Your task to perform on an android device: Open network settings Image 0: 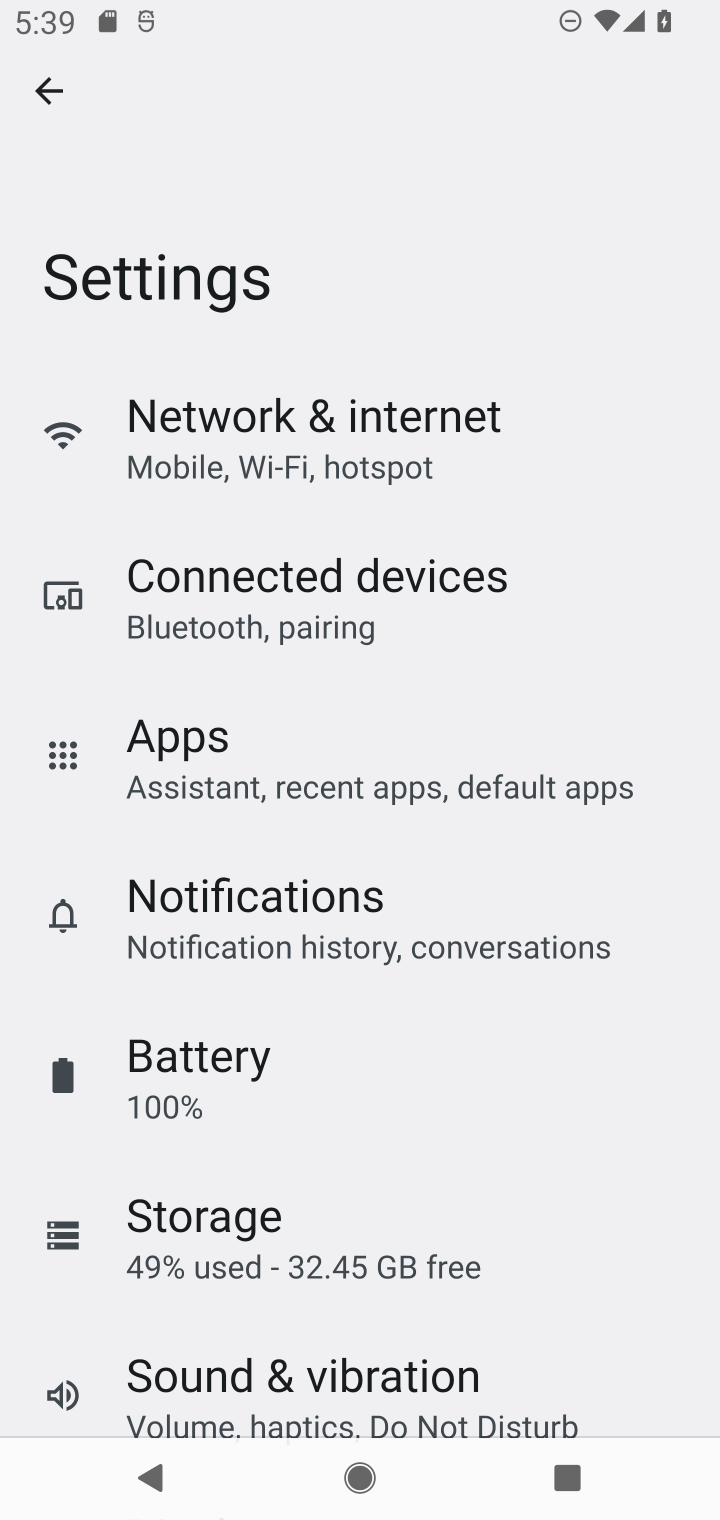
Step 0: press home button
Your task to perform on an android device: Open network settings Image 1: 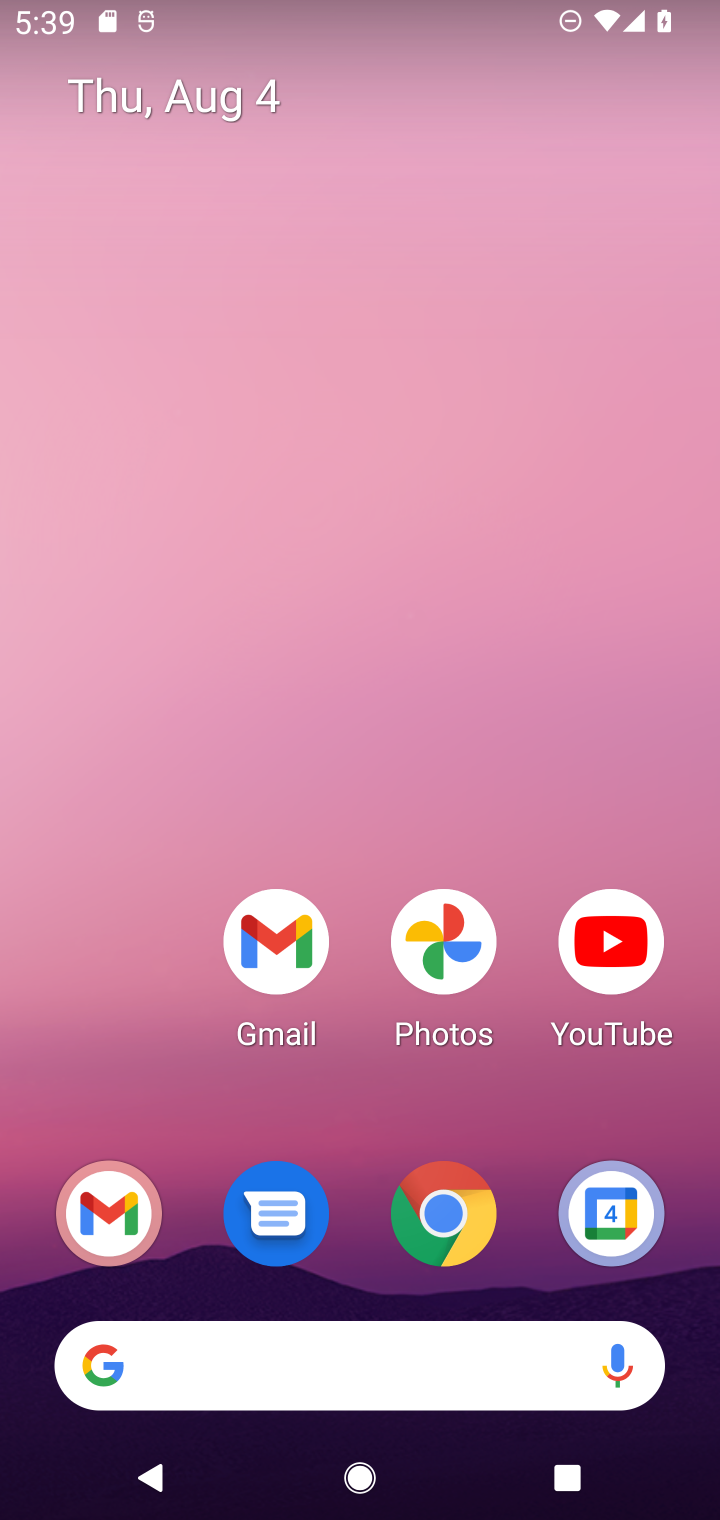
Step 1: drag from (175, 1156) to (194, 360)
Your task to perform on an android device: Open network settings Image 2: 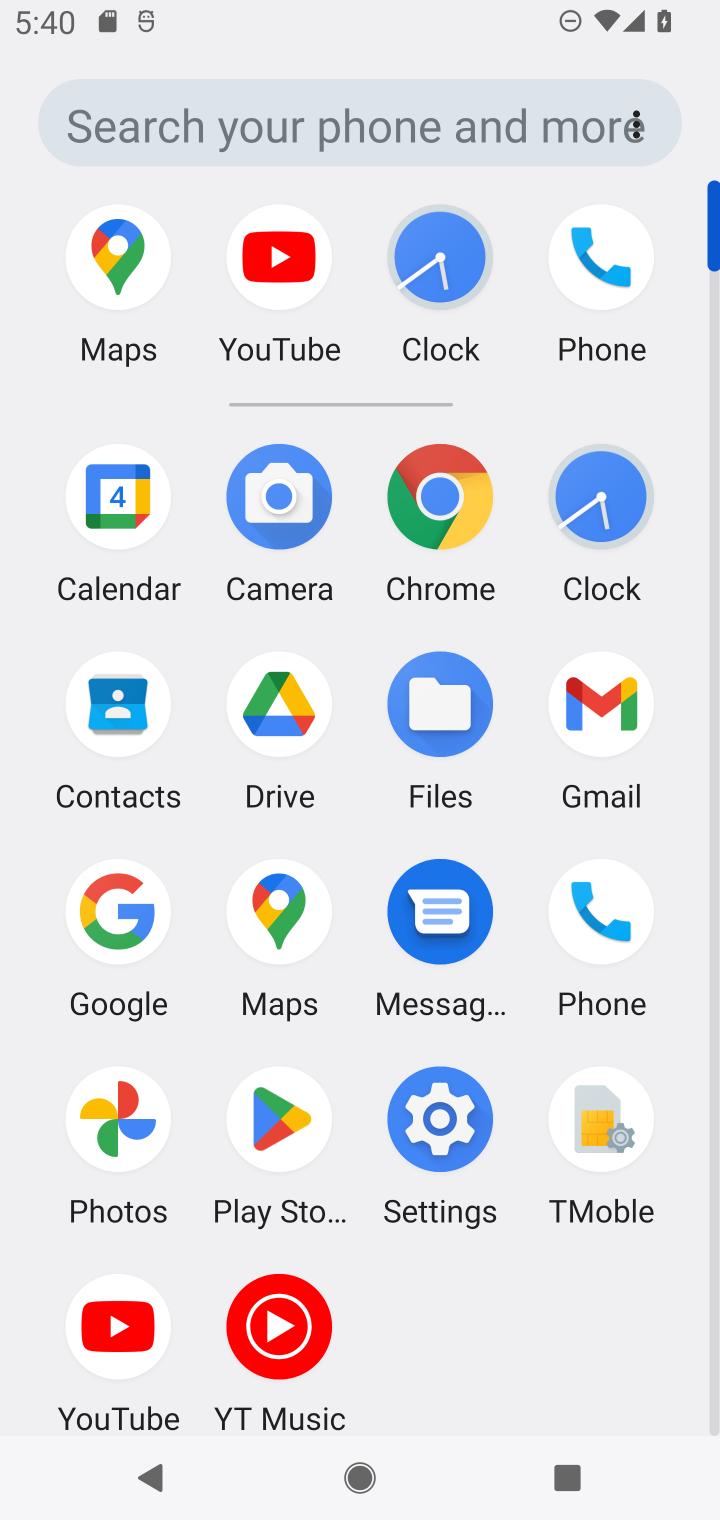
Step 2: click (457, 1119)
Your task to perform on an android device: Open network settings Image 3: 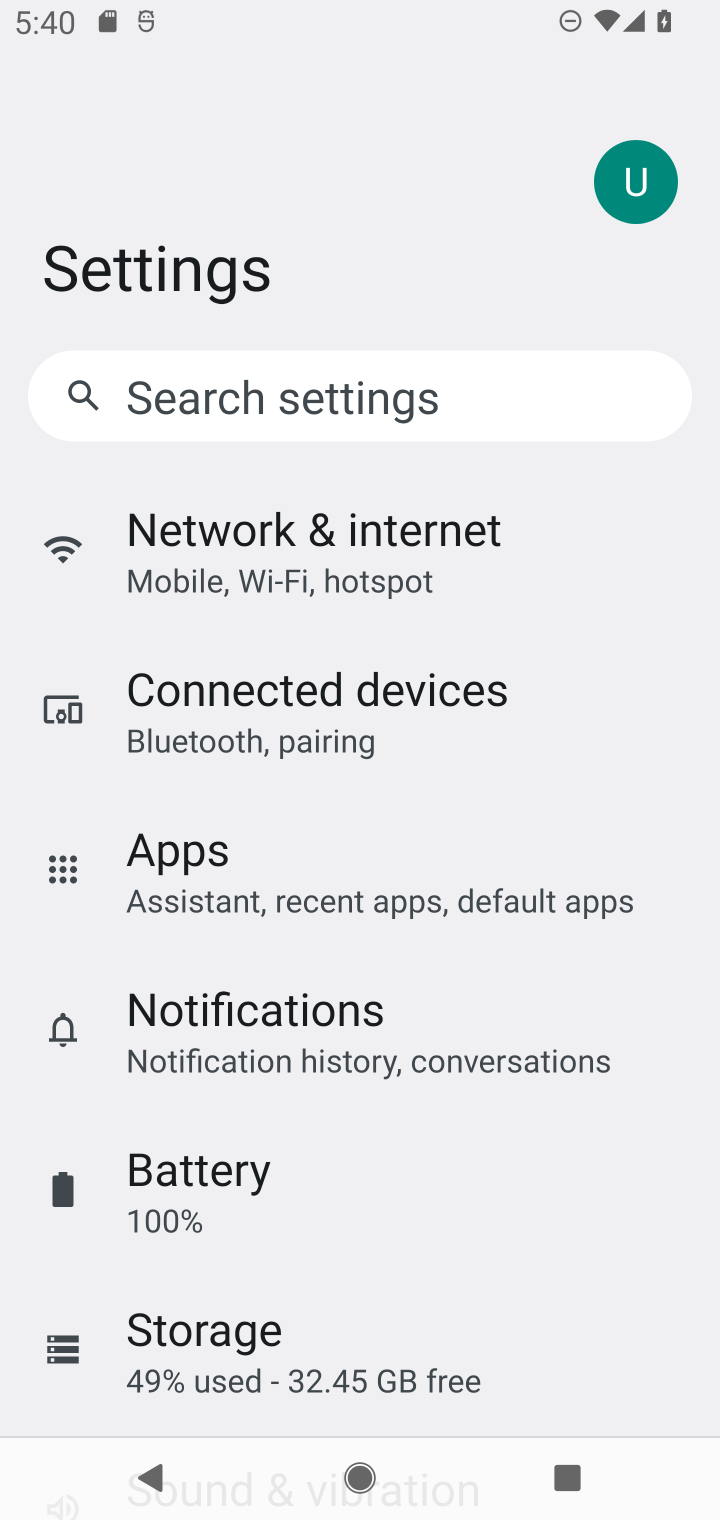
Step 3: drag from (598, 1233) to (598, 969)
Your task to perform on an android device: Open network settings Image 4: 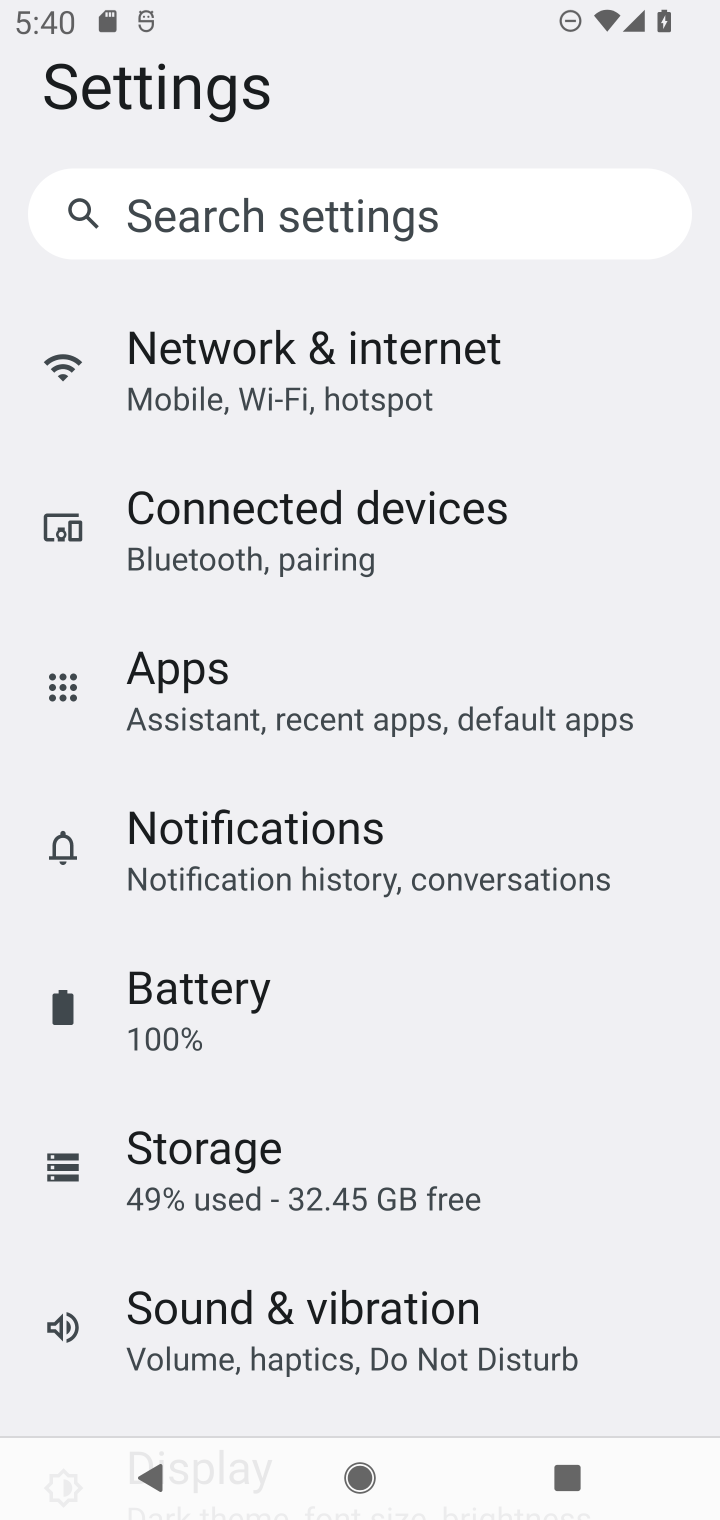
Step 4: drag from (623, 1300) to (623, 905)
Your task to perform on an android device: Open network settings Image 5: 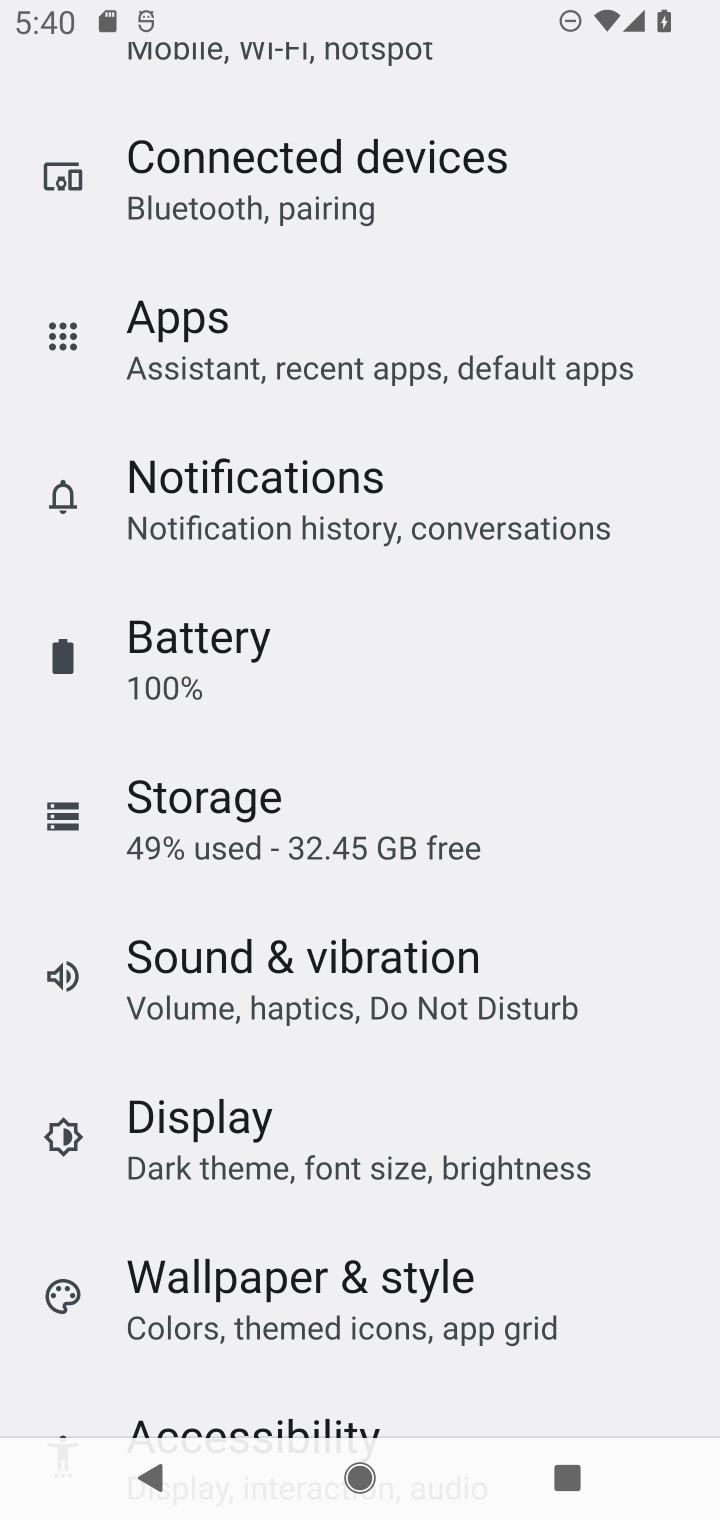
Step 5: drag from (611, 1290) to (631, 920)
Your task to perform on an android device: Open network settings Image 6: 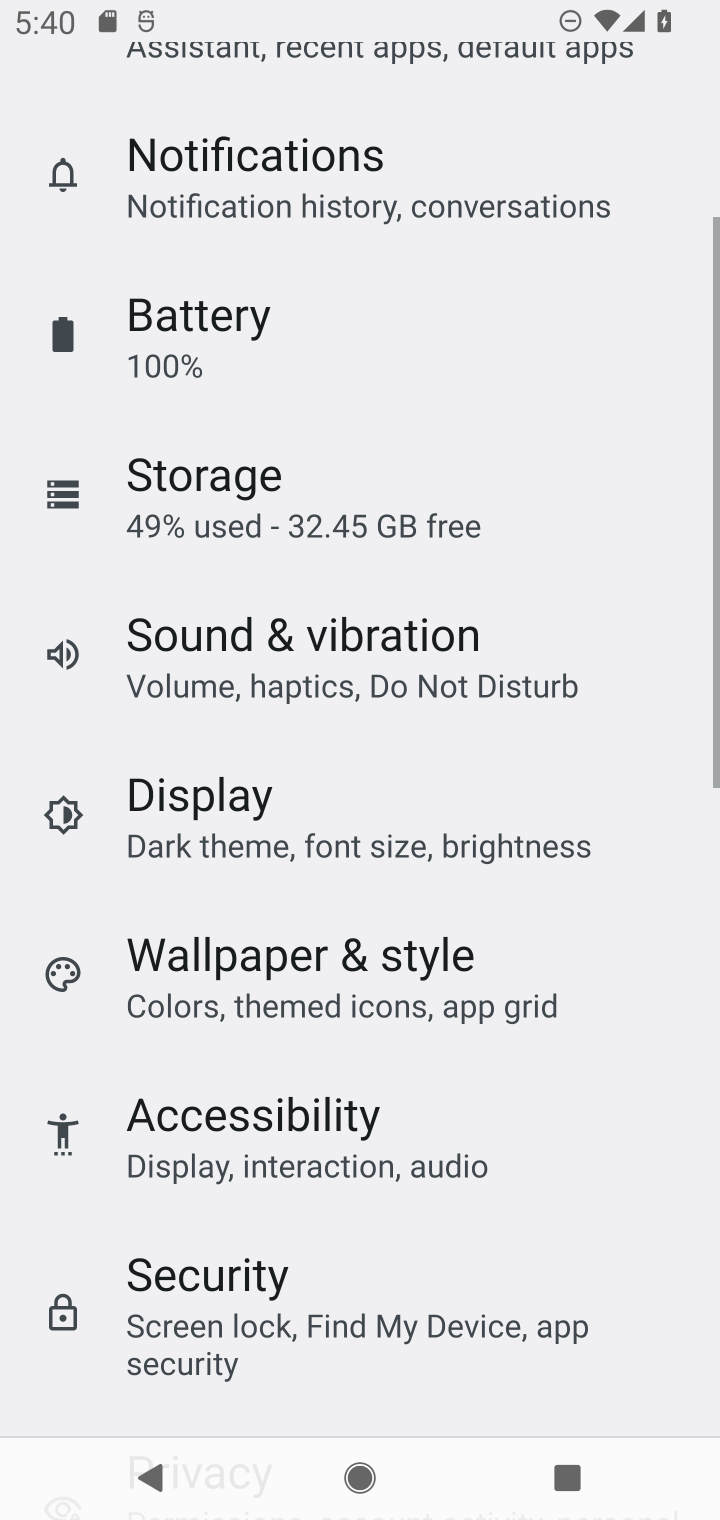
Step 6: drag from (604, 1233) to (621, 888)
Your task to perform on an android device: Open network settings Image 7: 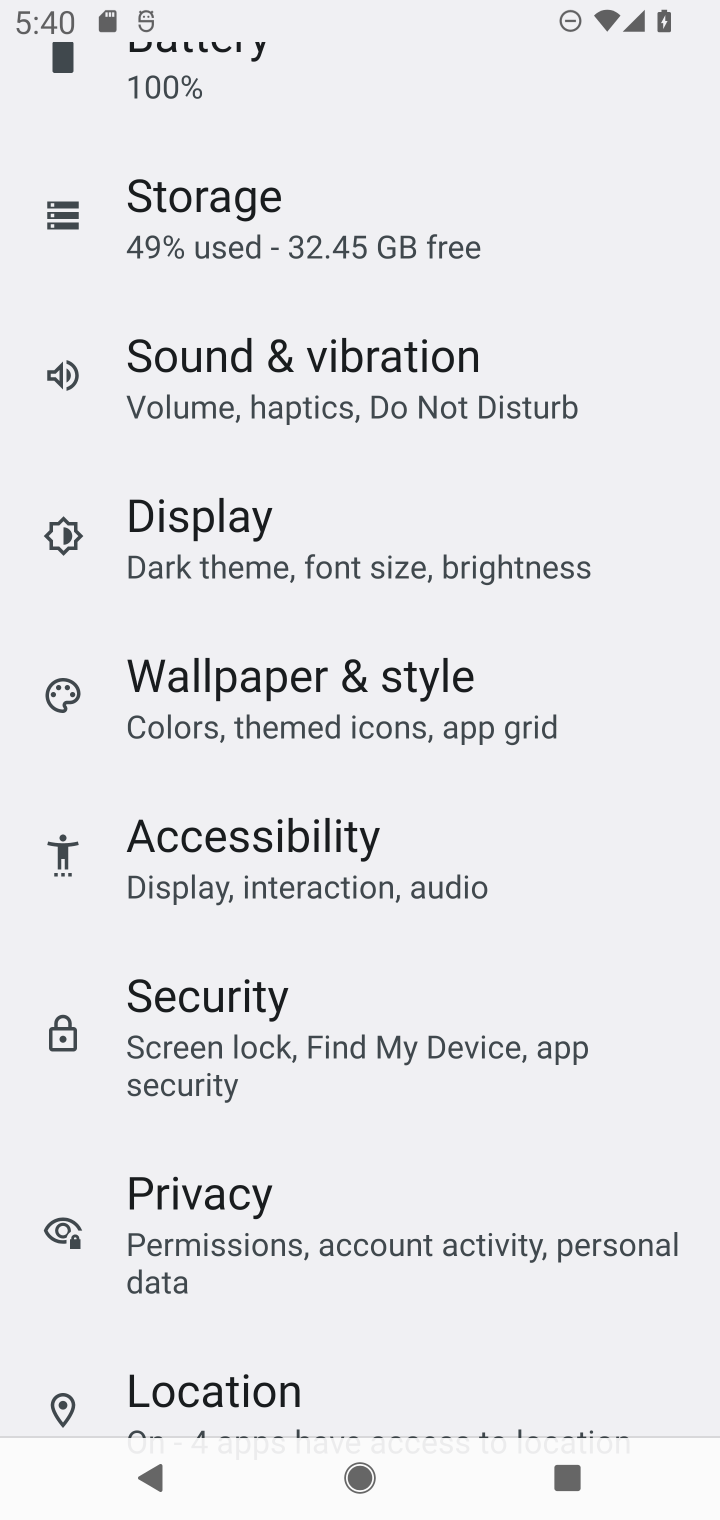
Step 7: drag from (609, 1339) to (639, 983)
Your task to perform on an android device: Open network settings Image 8: 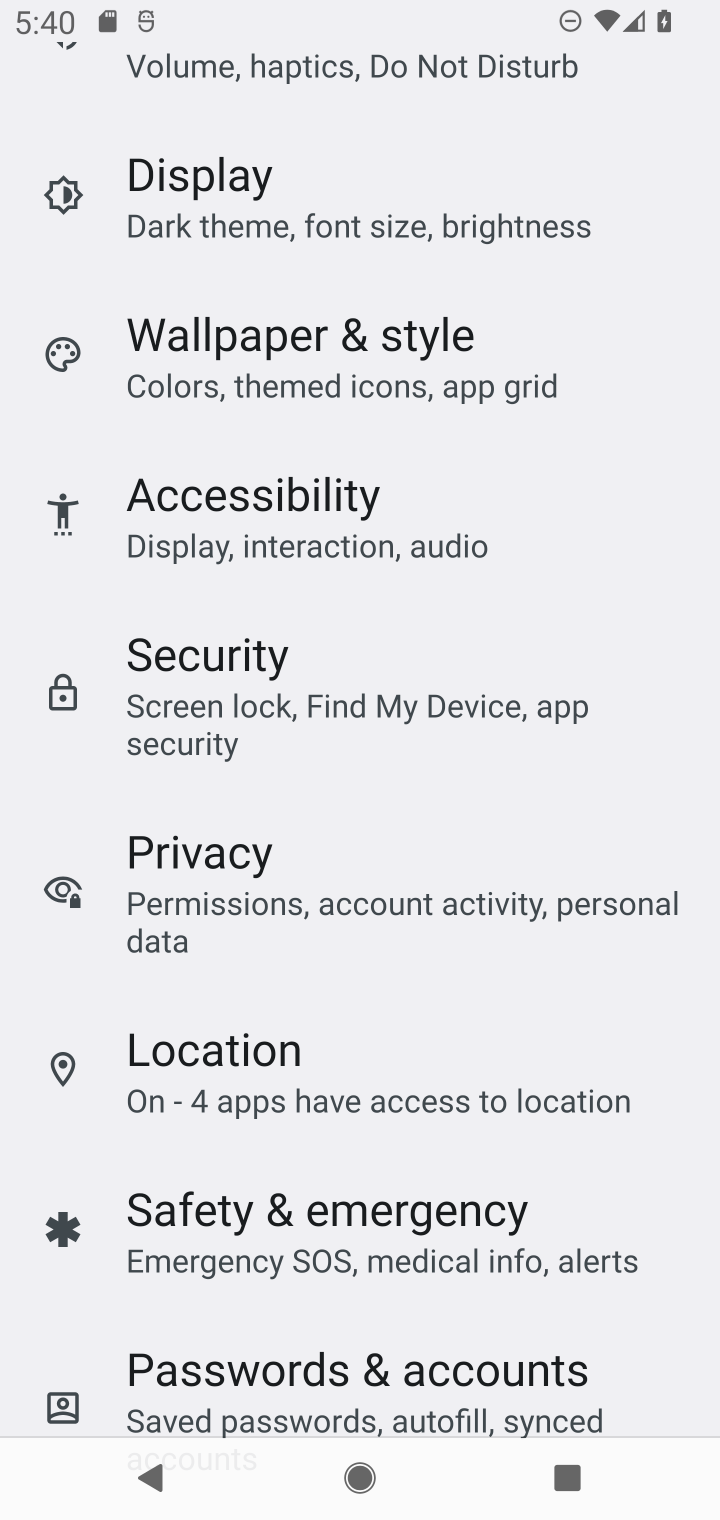
Step 8: drag from (647, 668) to (676, 950)
Your task to perform on an android device: Open network settings Image 9: 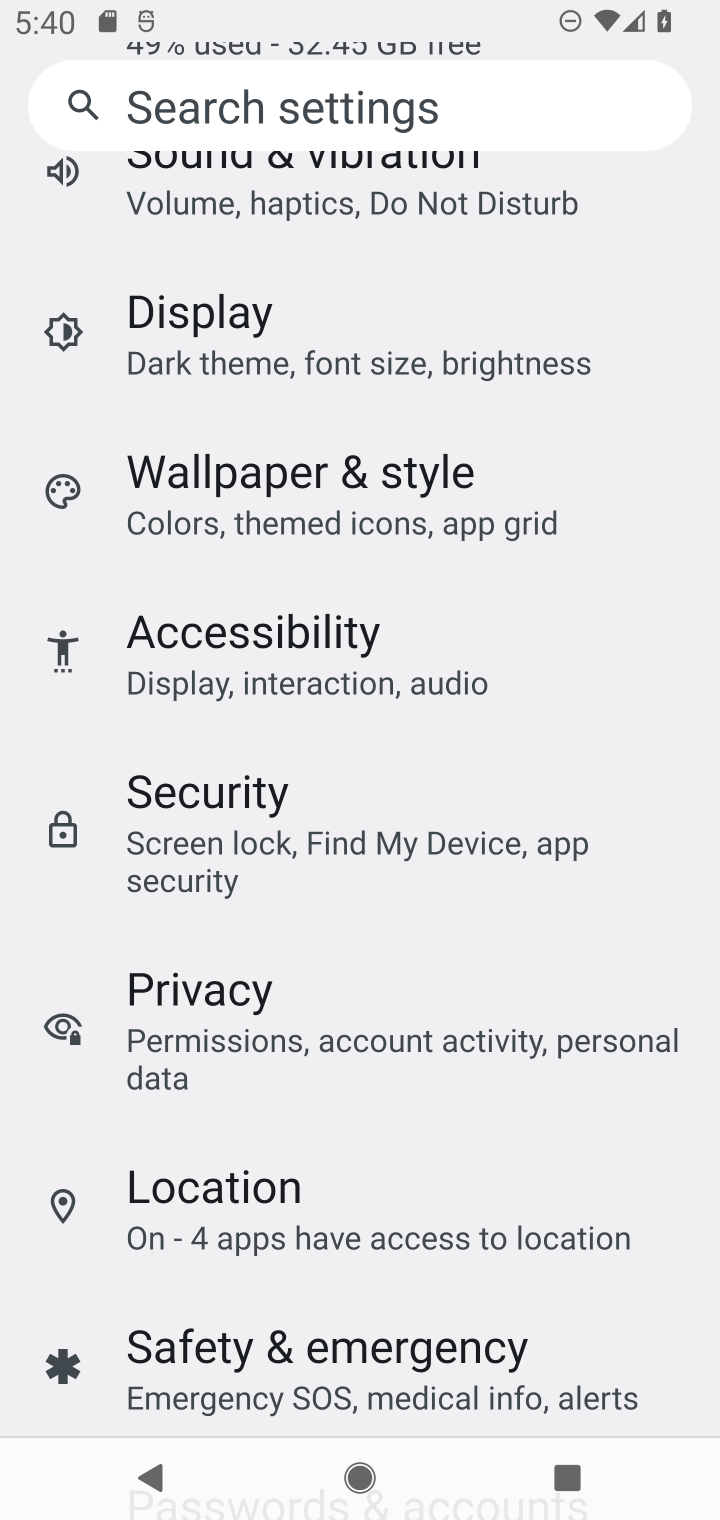
Step 9: drag from (614, 565) to (625, 847)
Your task to perform on an android device: Open network settings Image 10: 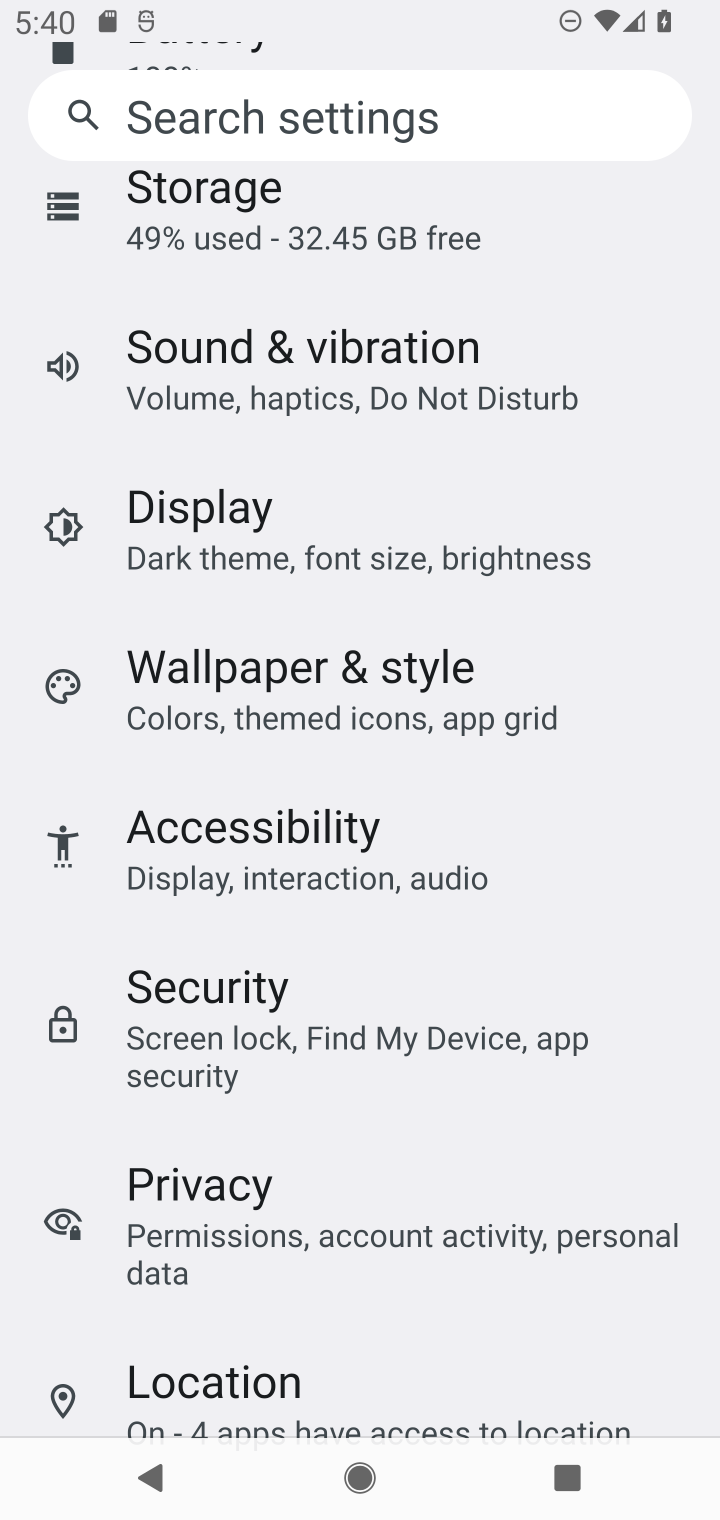
Step 10: drag from (632, 521) to (634, 931)
Your task to perform on an android device: Open network settings Image 11: 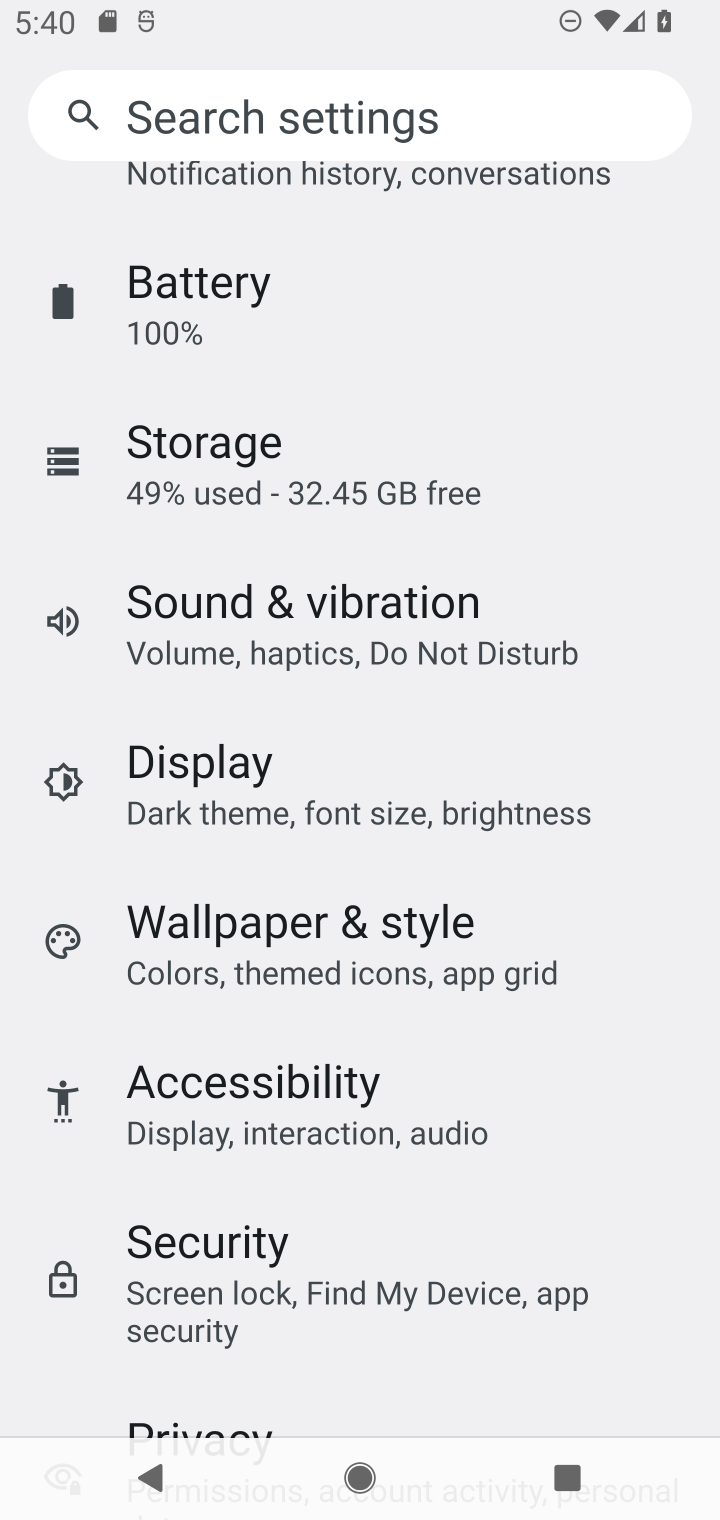
Step 11: drag from (623, 330) to (639, 747)
Your task to perform on an android device: Open network settings Image 12: 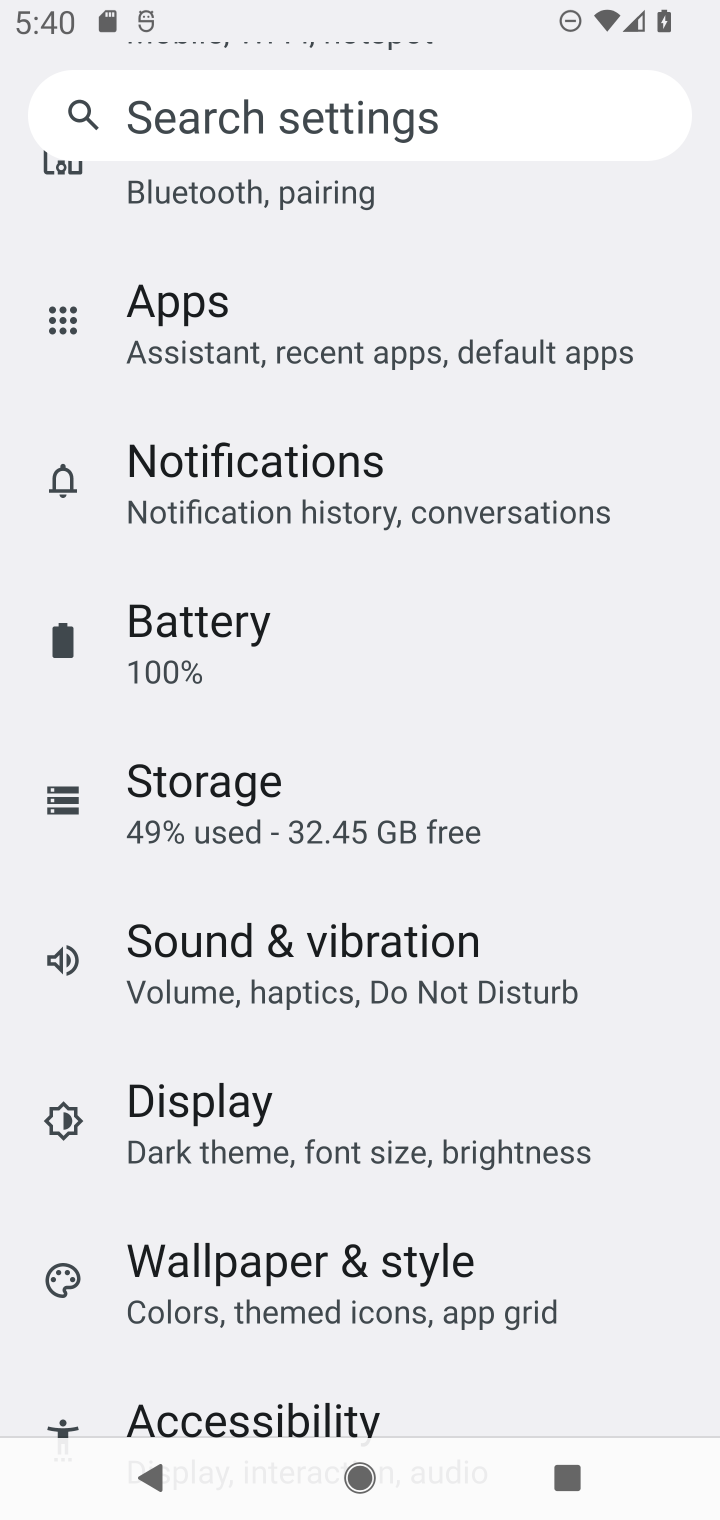
Step 12: drag from (655, 278) to (631, 904)
Your task to perform on an android device: Open network settings Image 13: 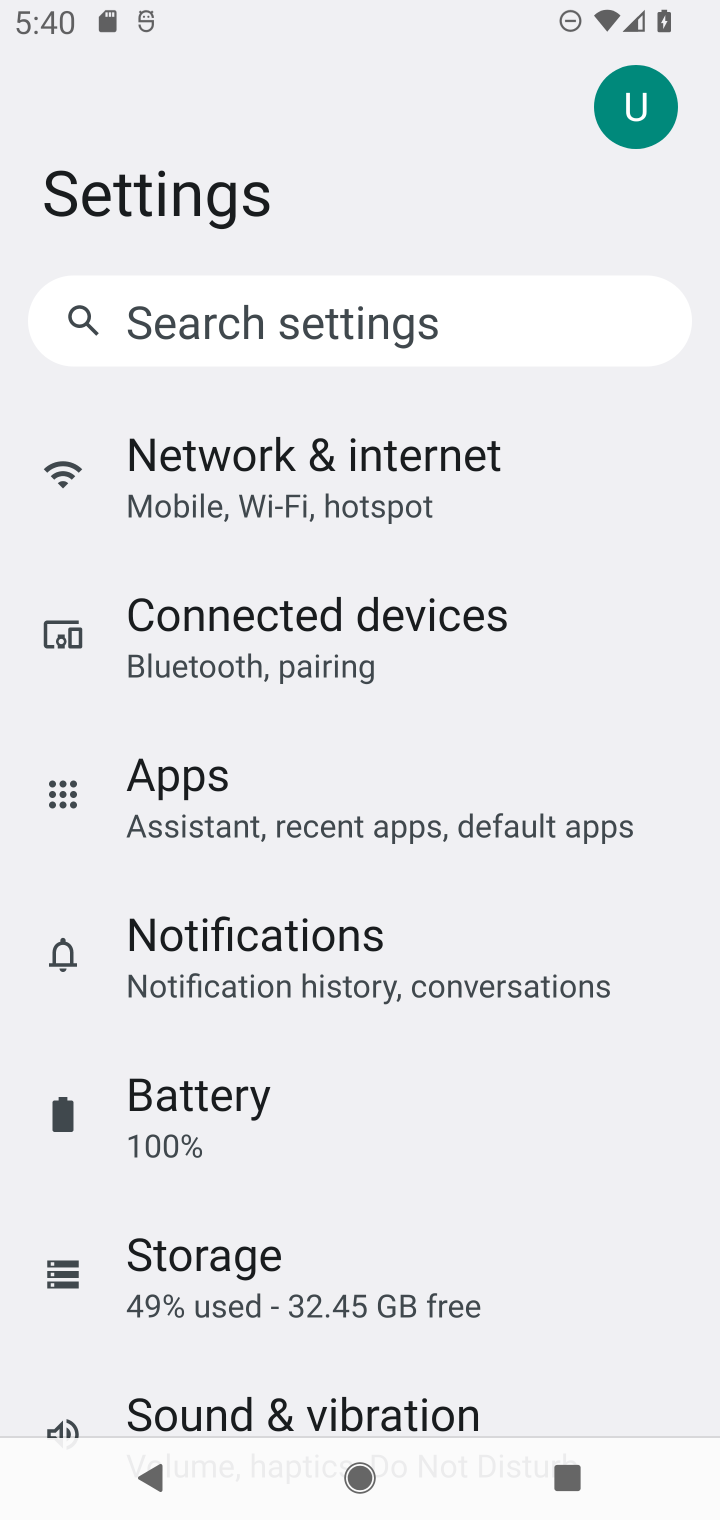
Step 13: click (433, 490)
Your task to perform on an android device: Open network settings Image 14: 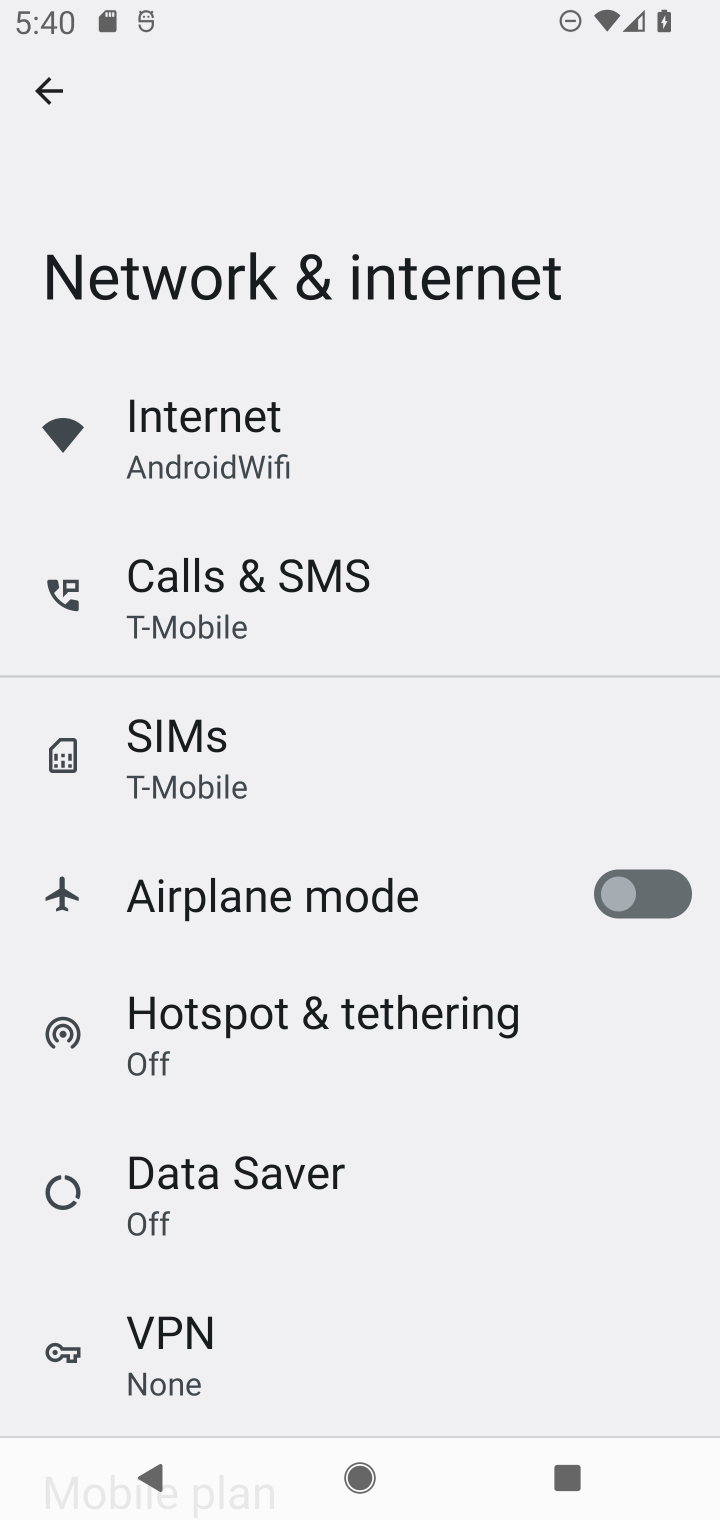
Step 14: click (228, 458)
Your task to perform on an android device: Open network settings Image 15: 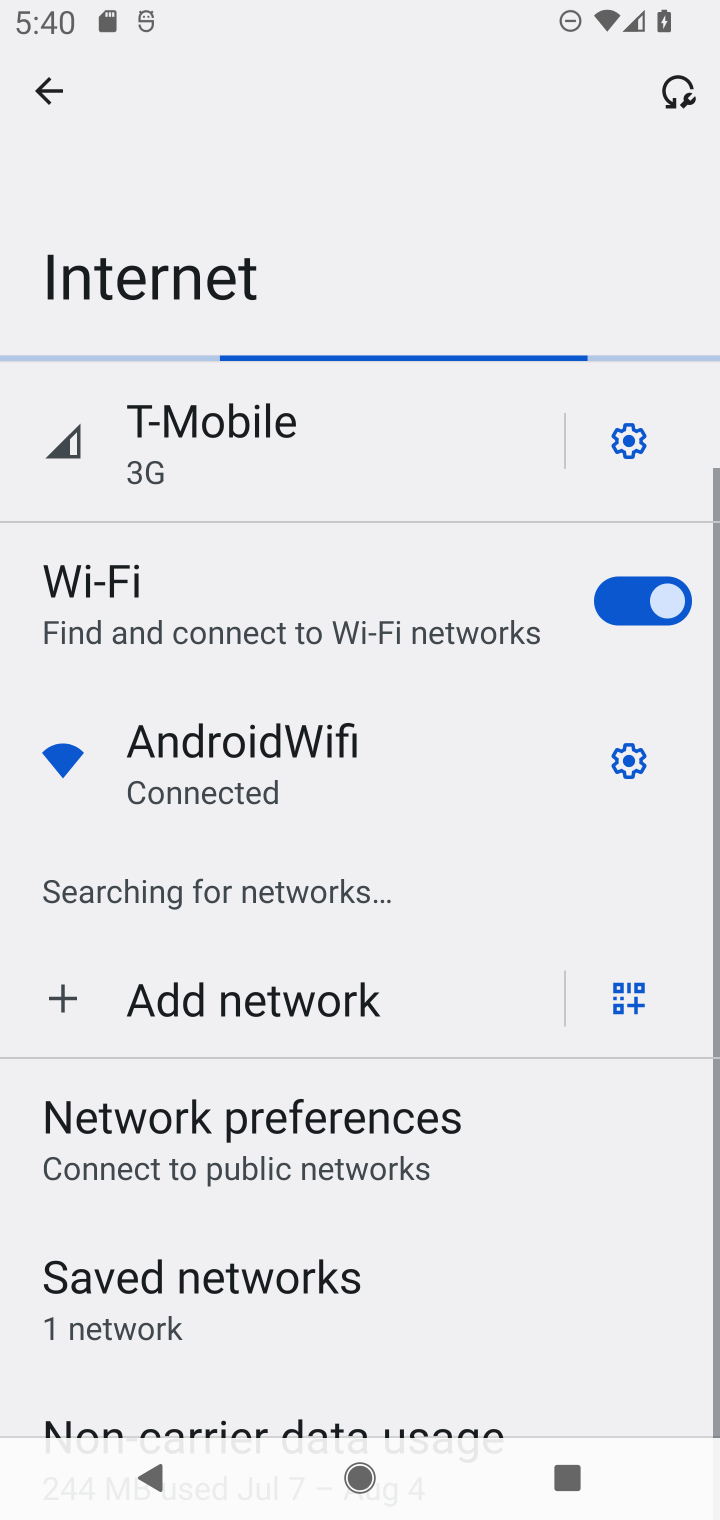
Step 15: task complete